Your task to perform on an android device: add a contact Image 0: 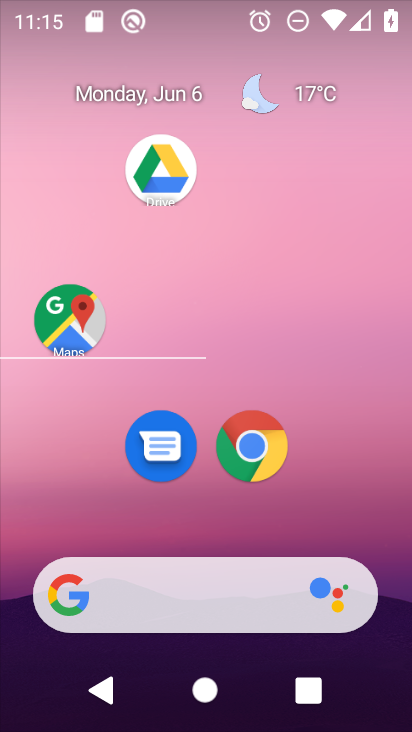
Step 0: click (245, 2)
Your task to perform on an android device: add a contact Image 1: 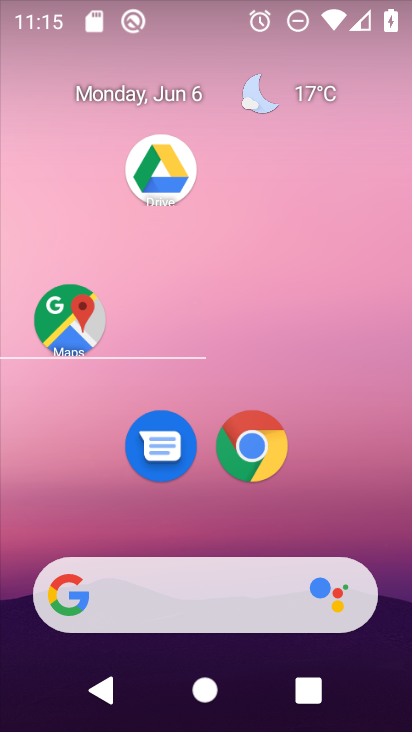
Step 1: drag from (325, 136) to (290, 35)
Your task to perform on an android device: add a contact Image 2: 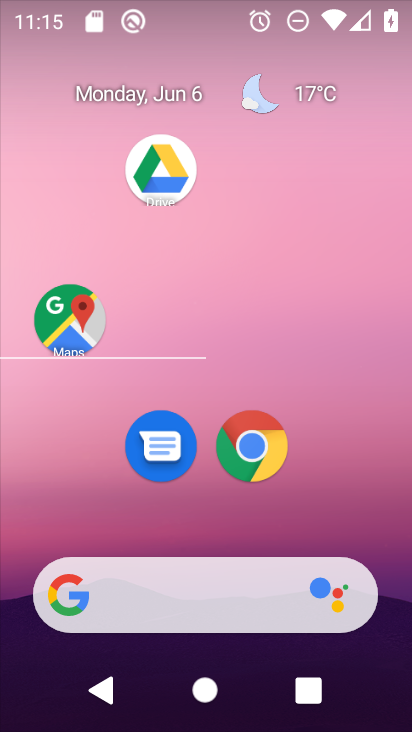
Step 2: drag from (181, 523) to (242, 114)
Your task to perform on an android device: add a contact Image 3: 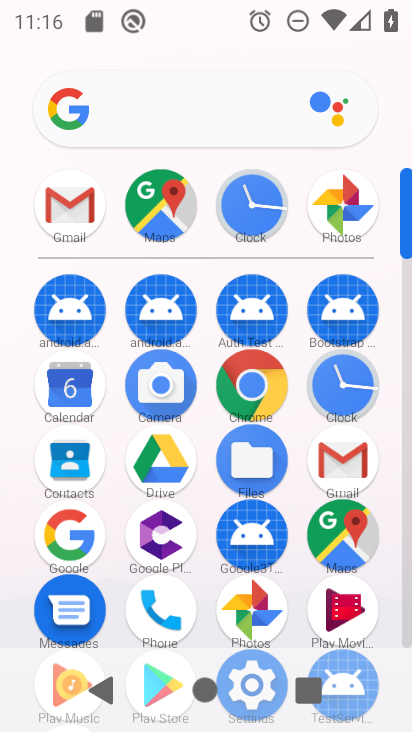
Step 3: drag from (203, 627) to (221, 219)
Your task to perform on an android device: add a contact Image 4: 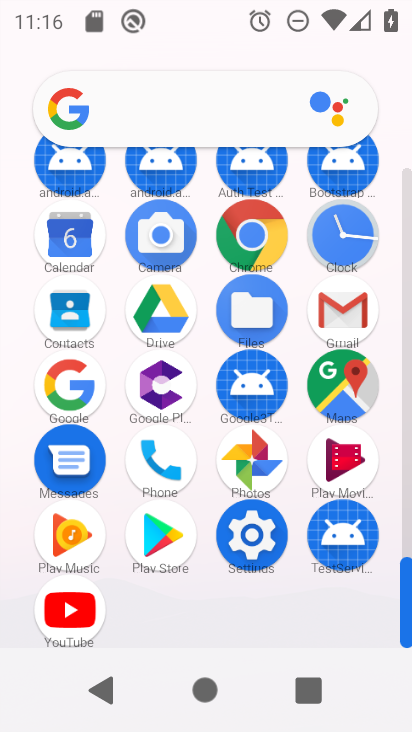
Step 4: click (79, 304)
Your task to perform on an android device: add a contact Image 5: 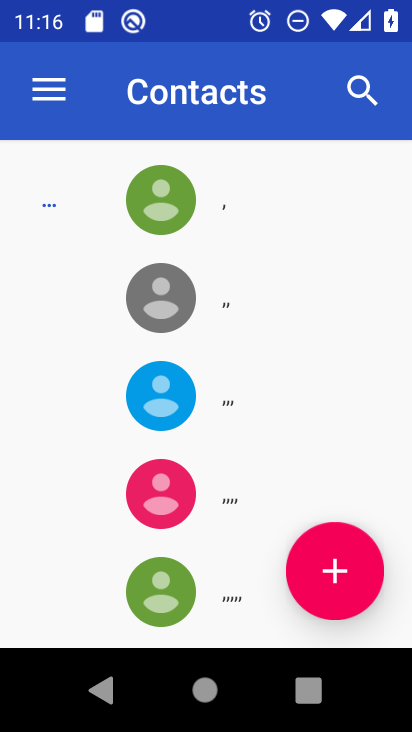
Step 5: click (320, 605)
Your task to perform on an android device: add a contact Image 6: 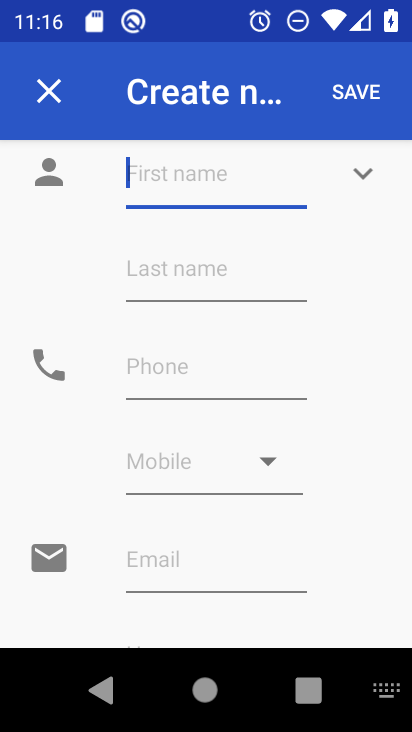
Step 6: type "oikjhnb"
Your task to perform on an android device: add a contact Image 7: 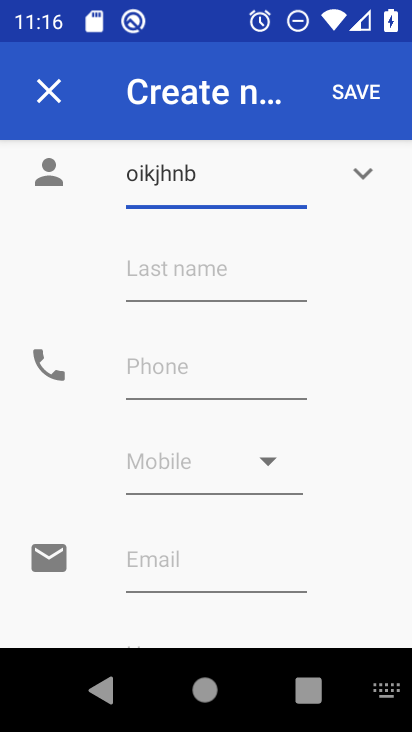
Step 7: click (200, 373)
Your task to perform on an android device: add a contact Image 8: 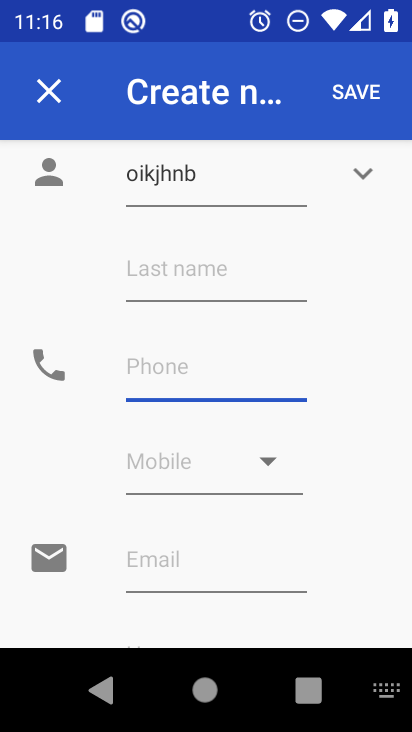
Step 8: click (177, 372)
Your task to perform on an android device: add a contact Image 9: 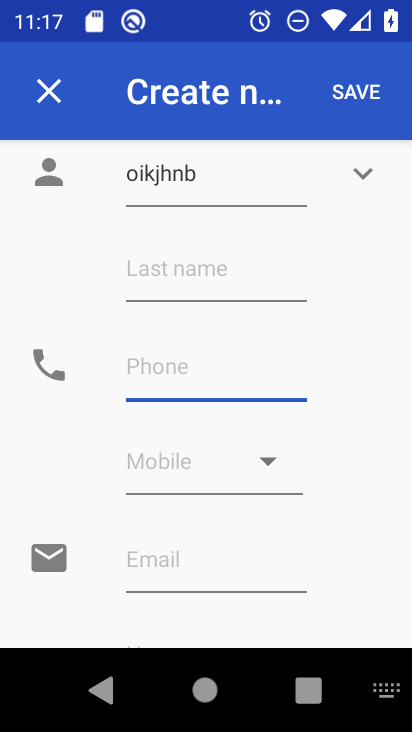
Step 9: type "0987654345678"
Your task to perform on an android device: add a contact Image 10: 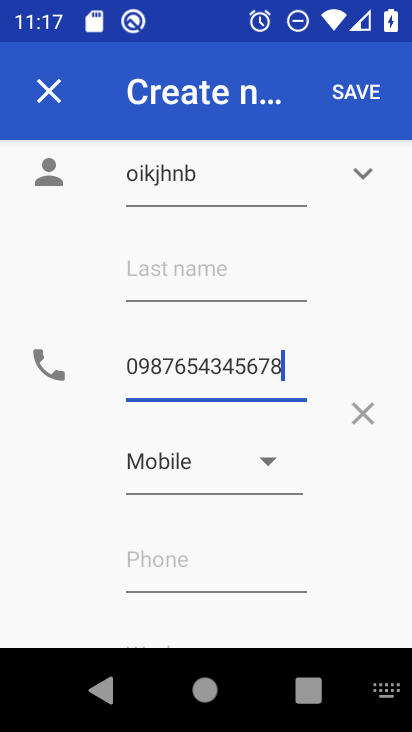
Step 10: click (367, 111)
Your task to perform on an android device: add a contact Image 11: 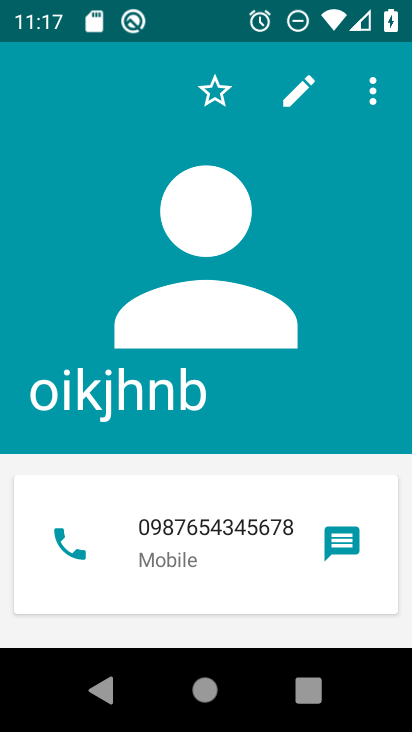
Step 11: task complete